Your task to perform on an android device: See recent photos Image 0: 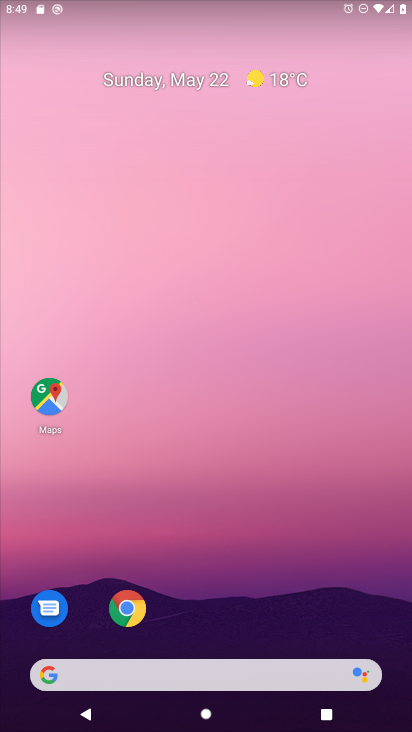
Step 0: click (206, 247)
Your task to perform on an android device: See recent photos Image 1: 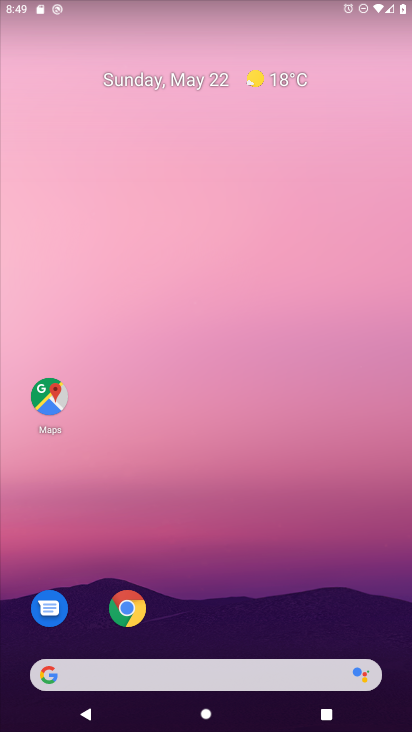
Step 1: drag from (232, 728) to (207, 82)
Your task to perform on an android device: See recent photos Image 2: 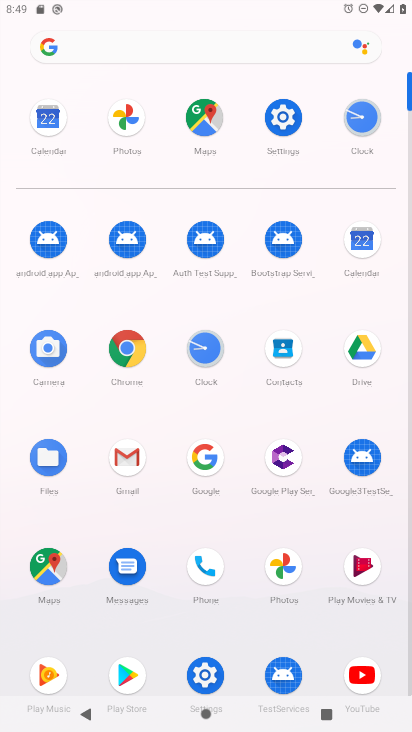
Step 2: click (124, 114)
Your task to perform on an android device: See recent photos Image 3: 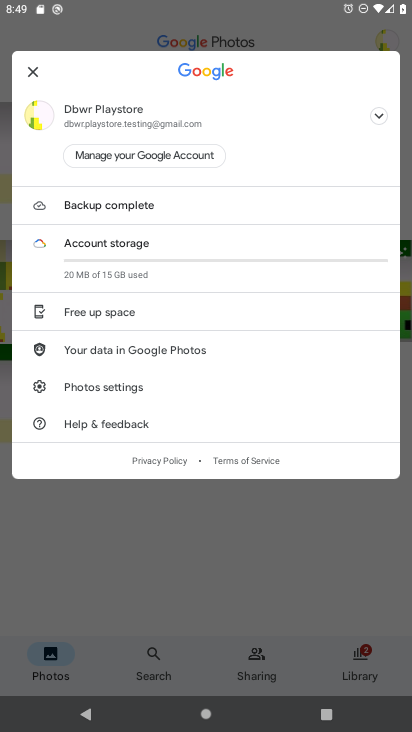
Step 3: click (33, 72)
Your task to perform on an android device: See recent photos Image 4: 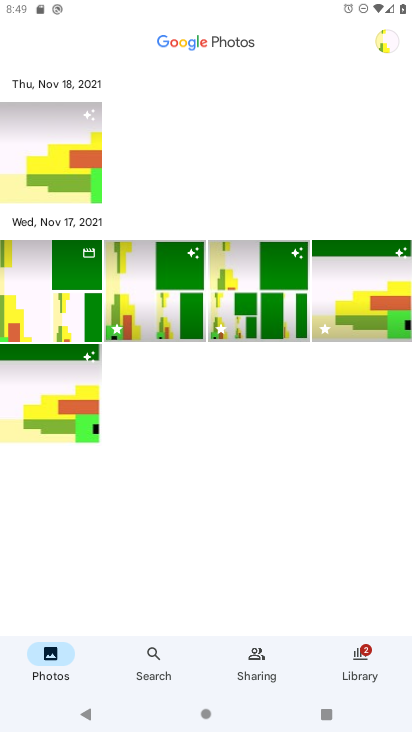
Step 4: click (57, 151)
Your task to perform on an android device: See recent photos Image 5: 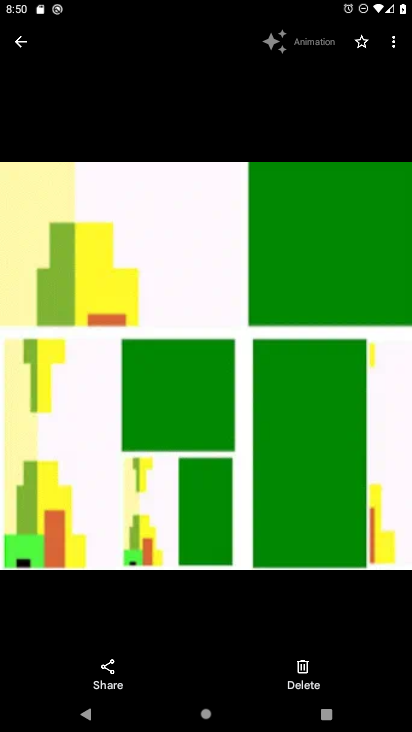
Step 5: task complete